Your task to perform on an android device: show emergency info Image 0: 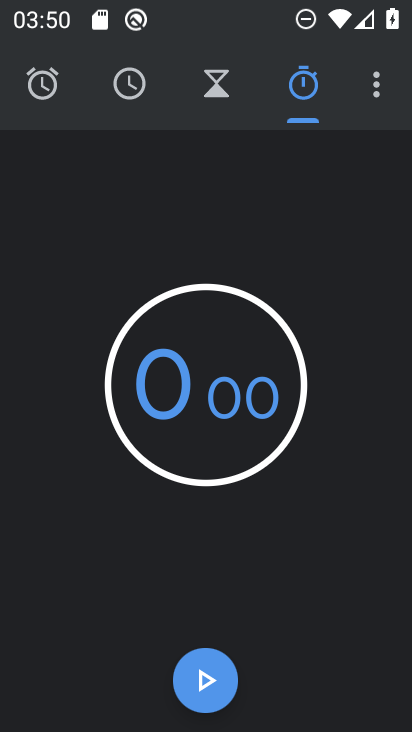
Step 0: press home button
Your task to perform on an android device: show emergency info Image 1: 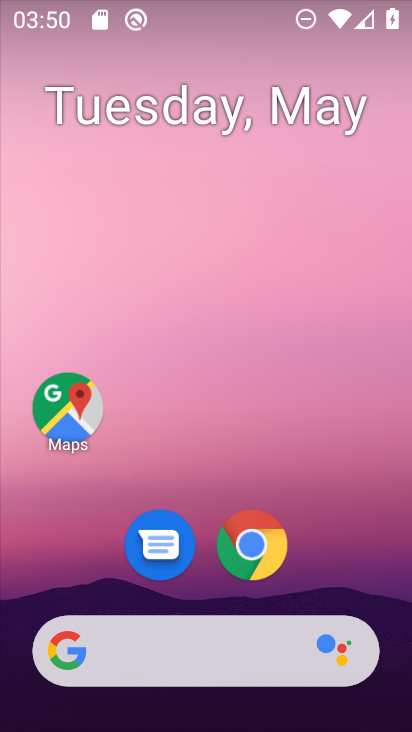
Step 1: drag from (392, 617) to (360, 122)
Your task to perform on an android device: show emergency info Image 2: 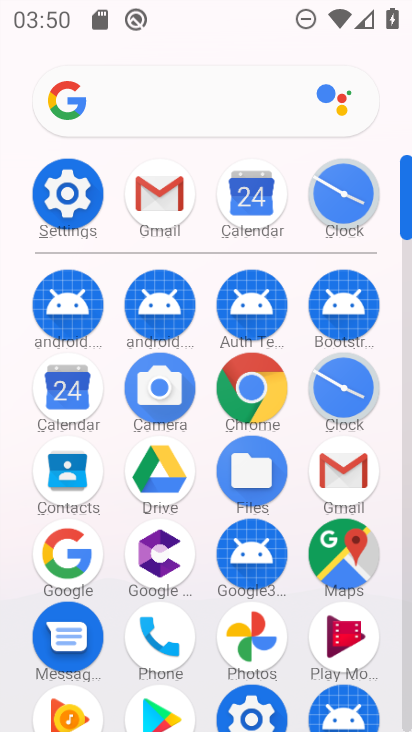
Step 2: click (407, 701)
Your task to perform on an android device: show emergency info Image 3: 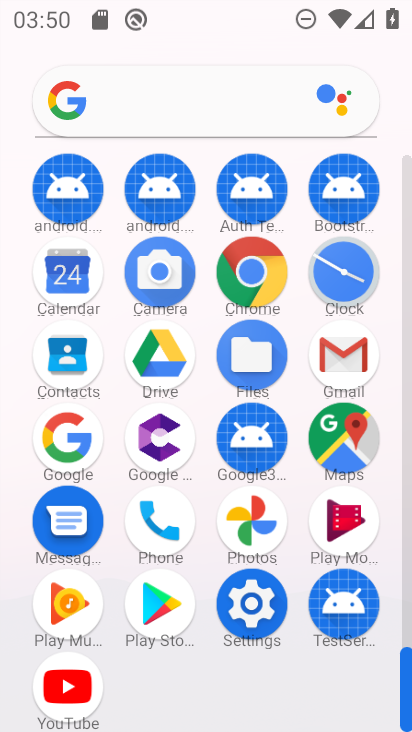
Step 3: click (253, 604)
Your task to perform on an android device: show emergency info Image 4: 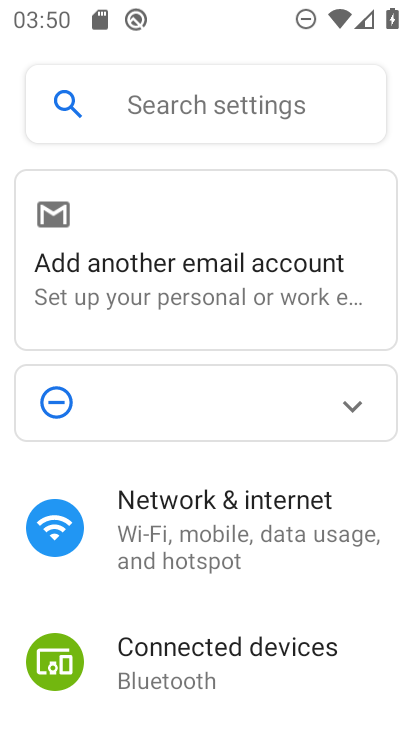
Step 4: drag from (362, 646) to (279, 107)
Your task to perform on an android device: show emergency info Image 5: 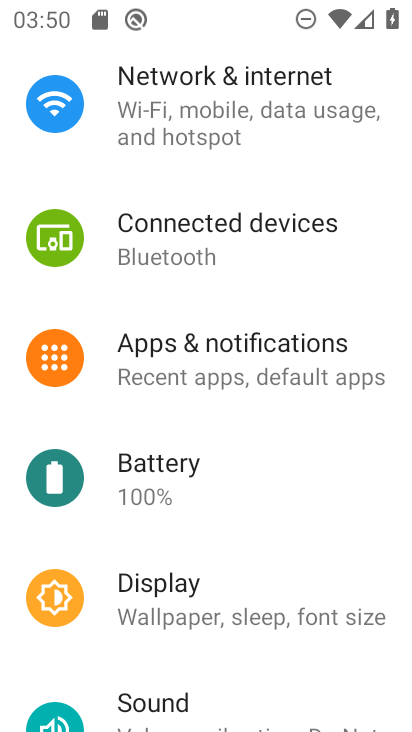
Step 5: drag from (310, 685) to (286, 121)
Your task to perform on an android device: show emergency info Image 6: 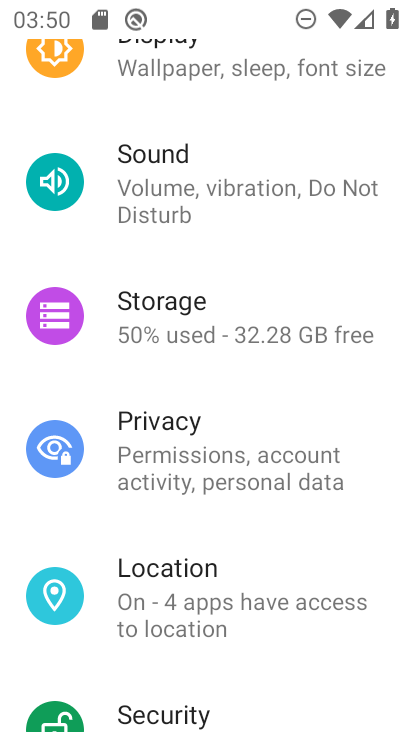
Step 6: drag from (323, 624) to (291, 152)
Your task to perform on an android device: show emergency info Image 7: 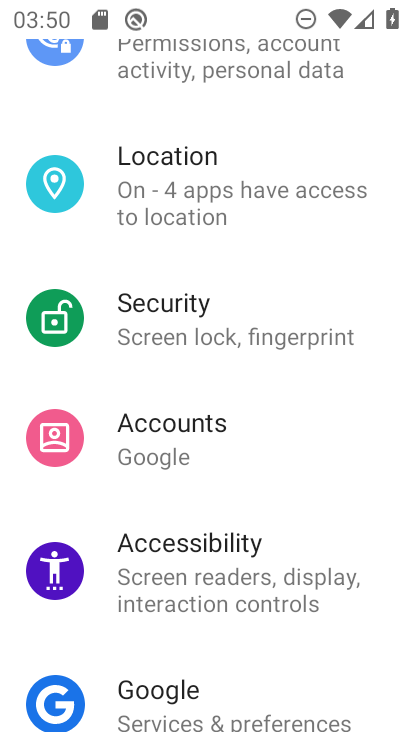
Step 7: drag from (297, 657) to (249, 138)
Your task to perform on an android device: show emergency info Image 8: 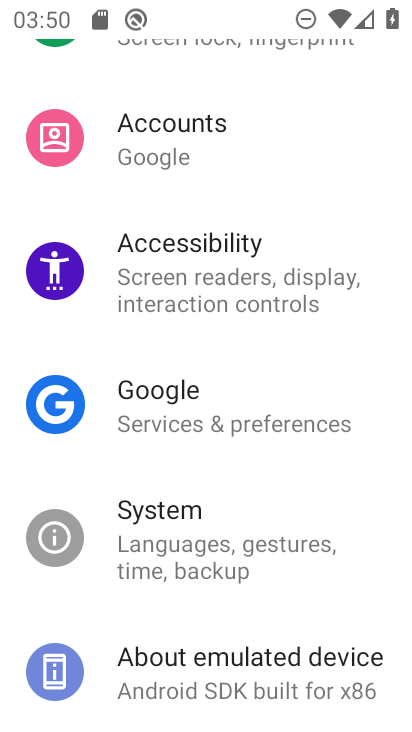
Step 8: click (207, 683)
Your task to perform on an android device: show emergency info Image 9: 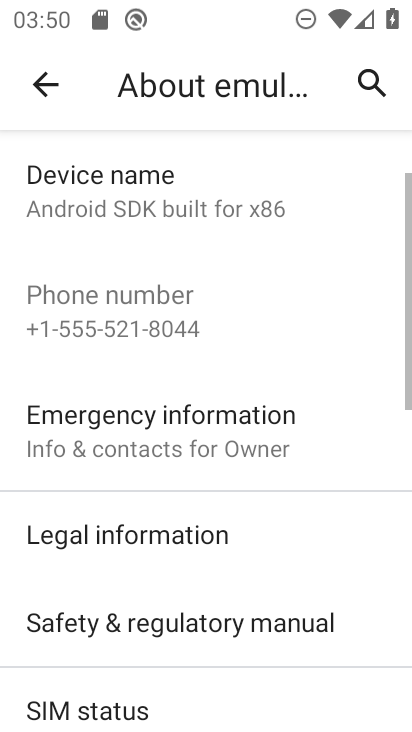
Step 9: click (105, 424)
Your task to perform on an android device: show emergency info Image 10: 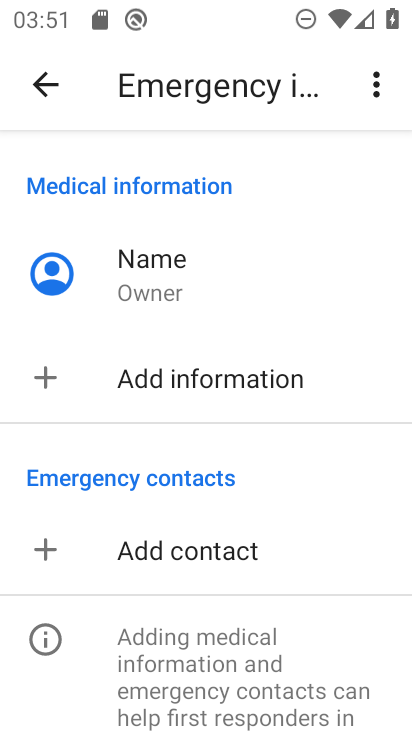
Step 10: task complete